Your task to perform on an android device: Open Amazon Image 0: 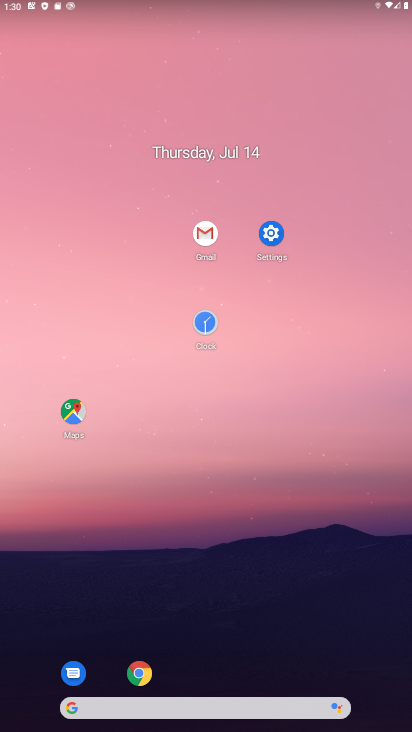
Step 0: click (147, 672)
Your task to perform on an android device: Open Amazon Image 1: 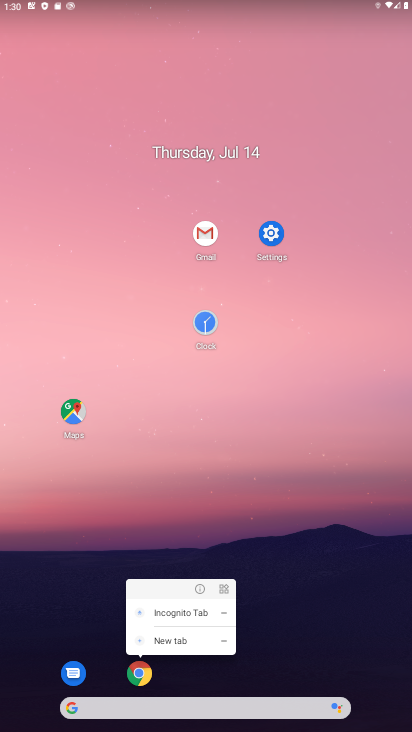
Step 1: click (147, 681)
Your task to perform on an android device: Open Amazon Image 2: 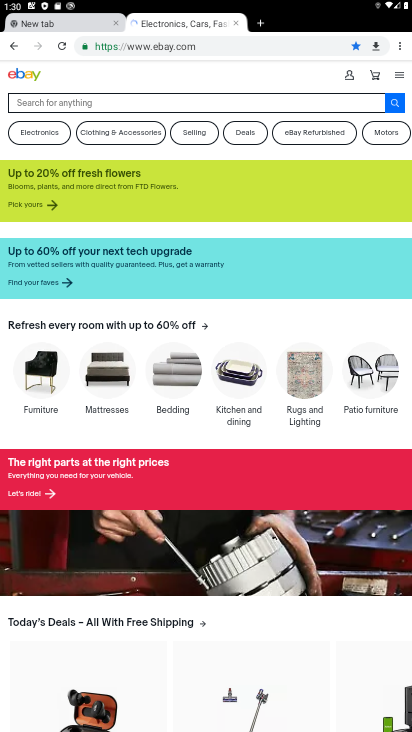
Step 2: click (265, 20)
Your task to perform on an android device: Open Amazon Image 3: 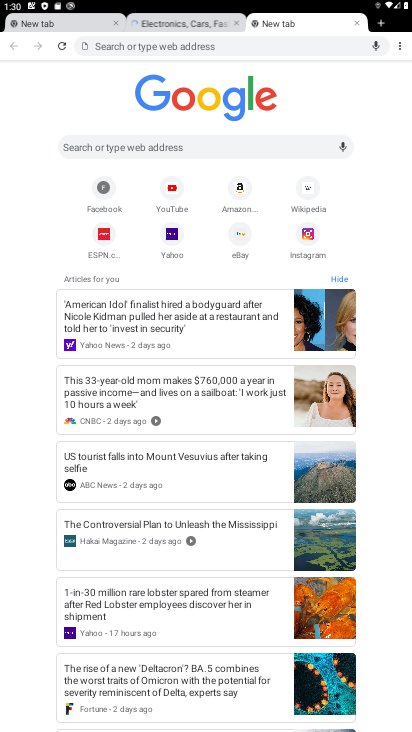
Step 3: click (244, 183)
Your task to perform on an android device: Open Amazon Image 4: 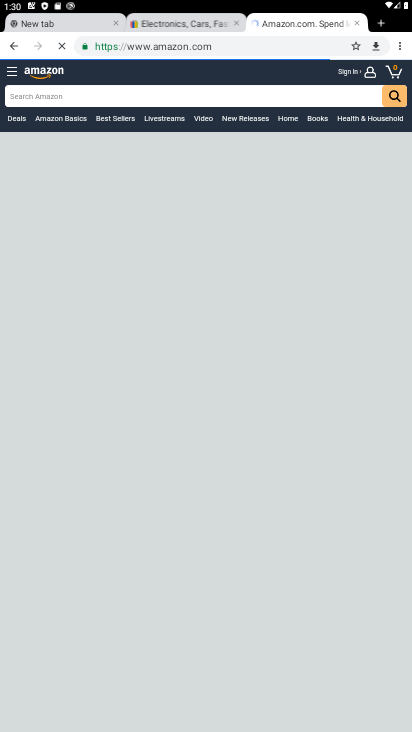
Step 4: task complete